Your task to perform on an android device: visit the assistant section in the google photos Image 0: 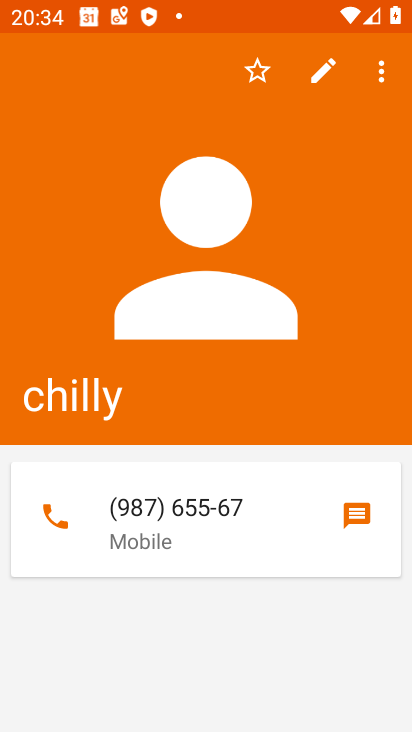
Step 0: press home button
Your task to perform on an android device: visit the assistant section in the google photos Image 1: 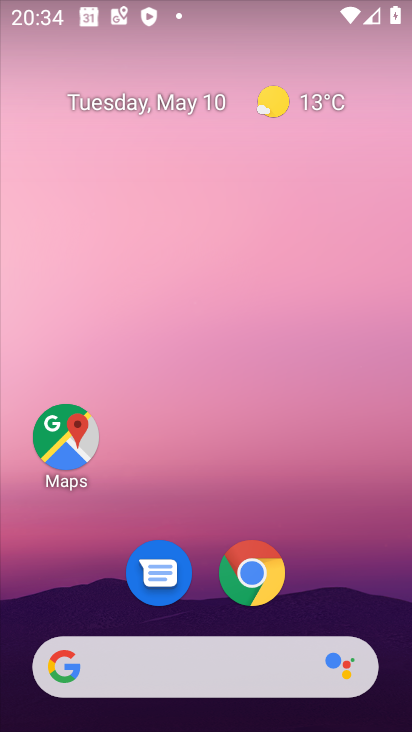
Step 1: drag from (356, 613) to (329, 4)
Your task to perform on an android device: visit the assistant section in the google photos Image 2: 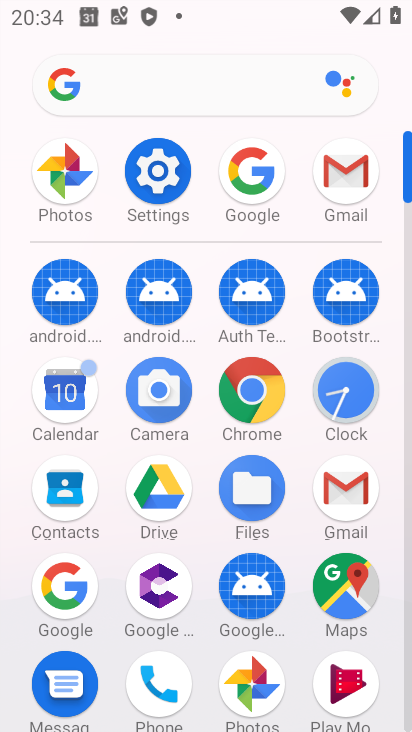
Step 2: click (67, 178)
Your task to perform on an android device: visit the assistant section in the google photos Image 3: 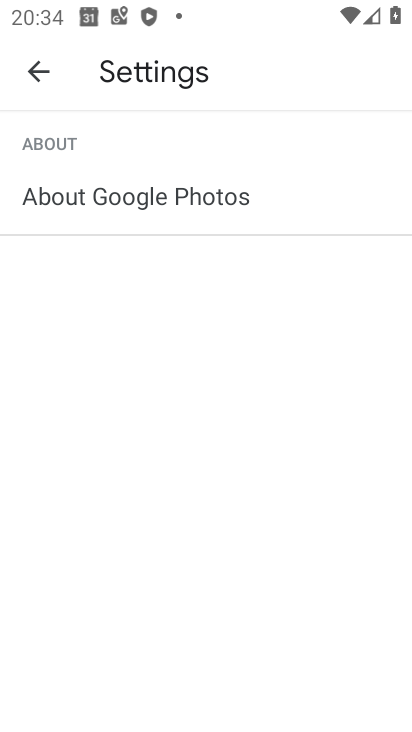
Step 3: click (39, 84)
Your task to perform on an android device: visit the assistant section in the google photos Image 4: 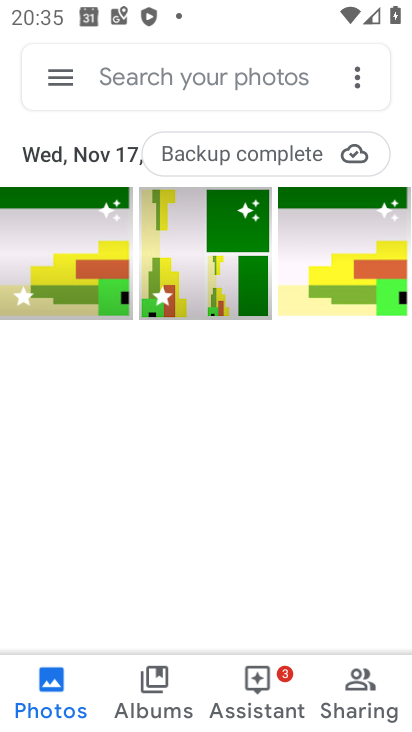
Step 4: click (255, 714)
Your task to perform on an android device: visit the assistant section in the google photos Image 5: 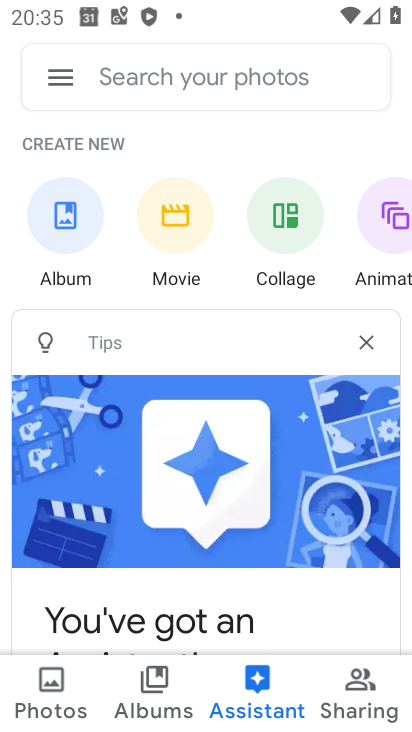
Step 5: task complete